Your task to perform on an android device: change the clock display to analog Image 0: 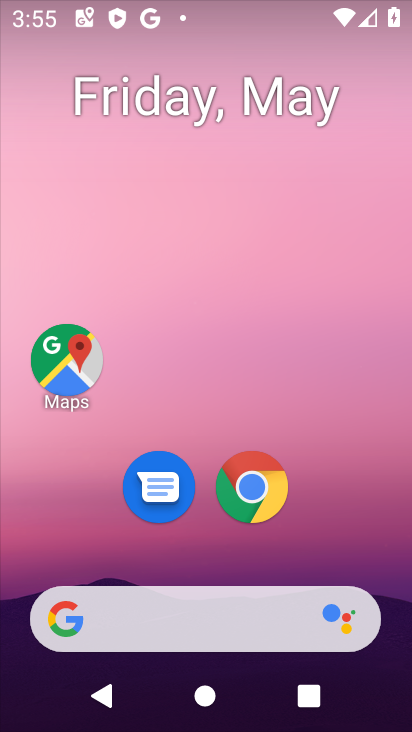
Step 0: drag from (383, 621) to (303, 38)
Your task to perform on an android device: change the clock display to analog Image 1: 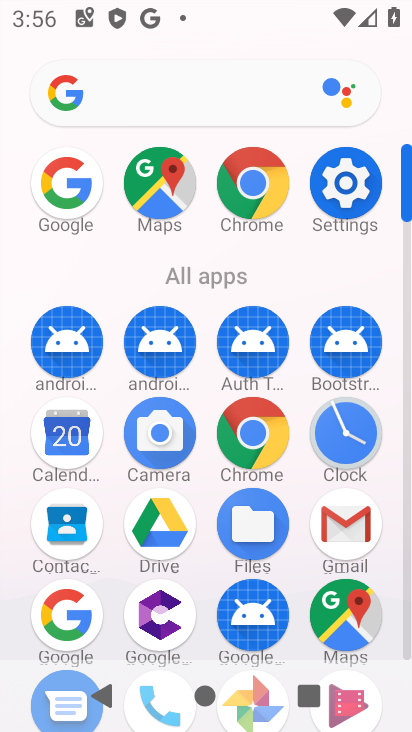
Step 1: click (335, 442)
Your task to perform on an android device: change the clock display to analog Image 2: 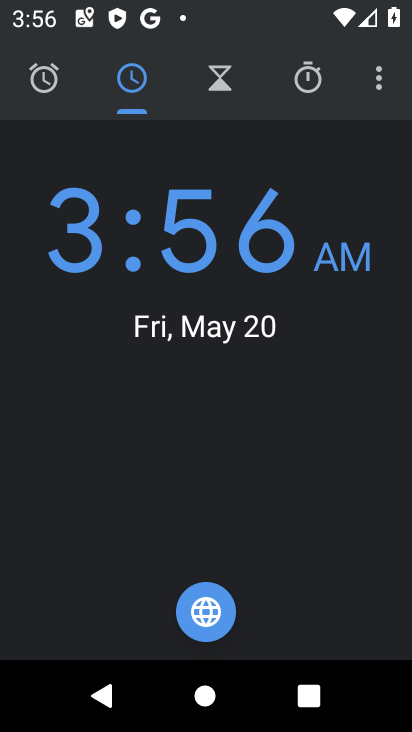
Step 2: click (375, 76)
Your task to perform on an android device: change the clock display to analog Image 3: 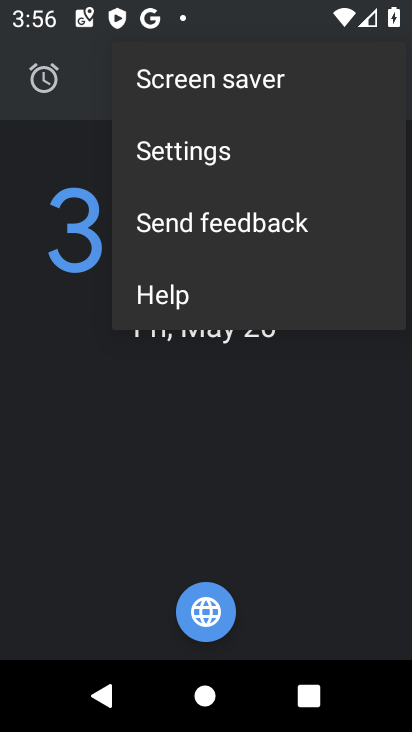
Step 3: click (212, 142)
Your task to perform on an android device: change the clock display to analog Image 4: 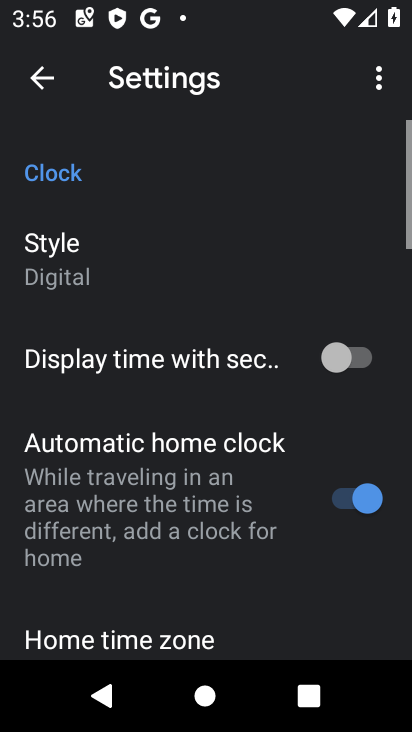
Step 4: click (125, 274)
Your task to perform on an android device: change the clock display to analog Image 5: 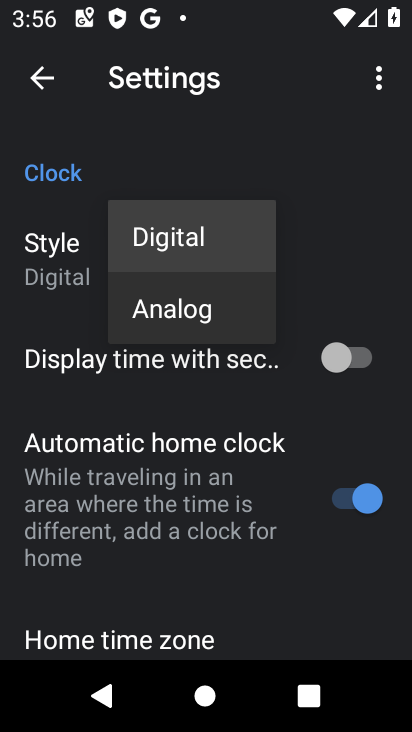
Step 5: click (183, 310)
Your task to perform on an android device: change the clock display to analog Image 6: 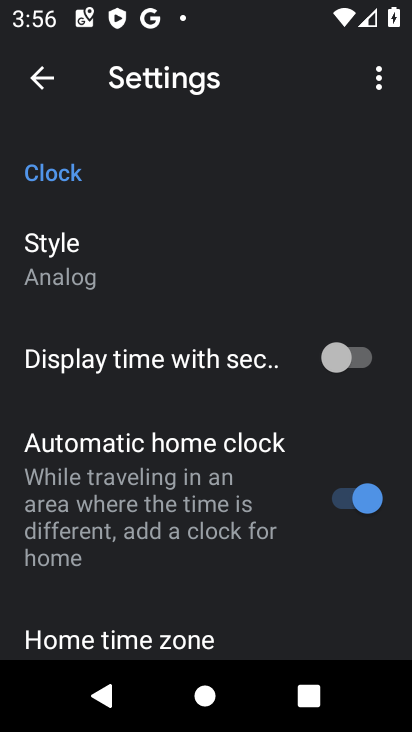
Step 6: task complete